Your task to perform on an android device: turn off smart reply in the gmail app Image 0: 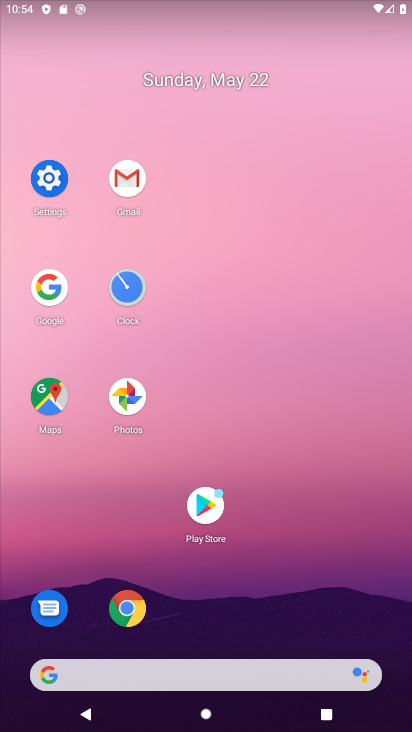
Step 0: click (125, 174)
Your task to perform on an android device: turn off smart reply in the gmail app Image 1: 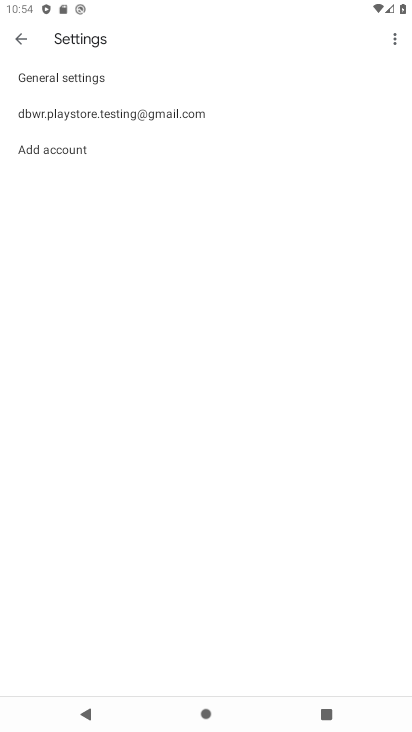
Step 1: click (120, 118)
Your task to perform on an android device: turn off smart reply in the gmail app Image 2: 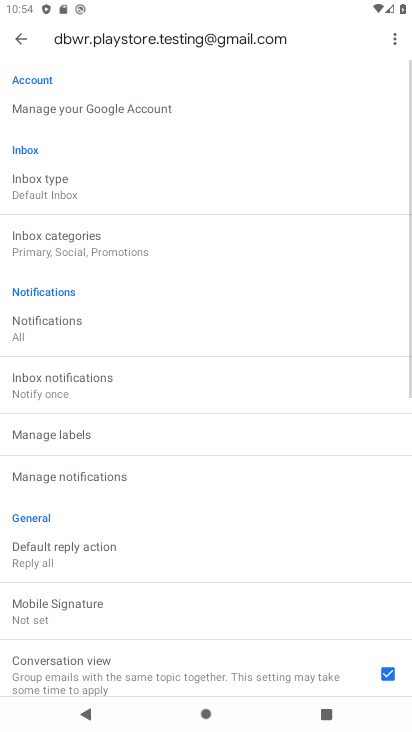
Step 2: task complete